Your task to perform on an android device: turn notification dots off Image 0: 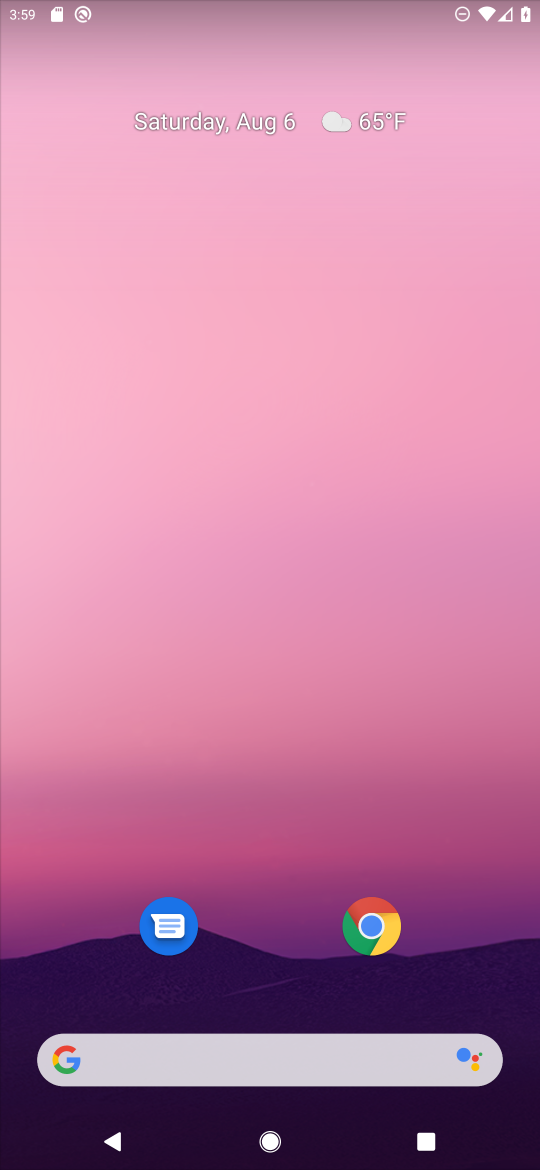
Step 0: click (252, 122)
Your task to perform on an android device: turn notification dots off Image 1: 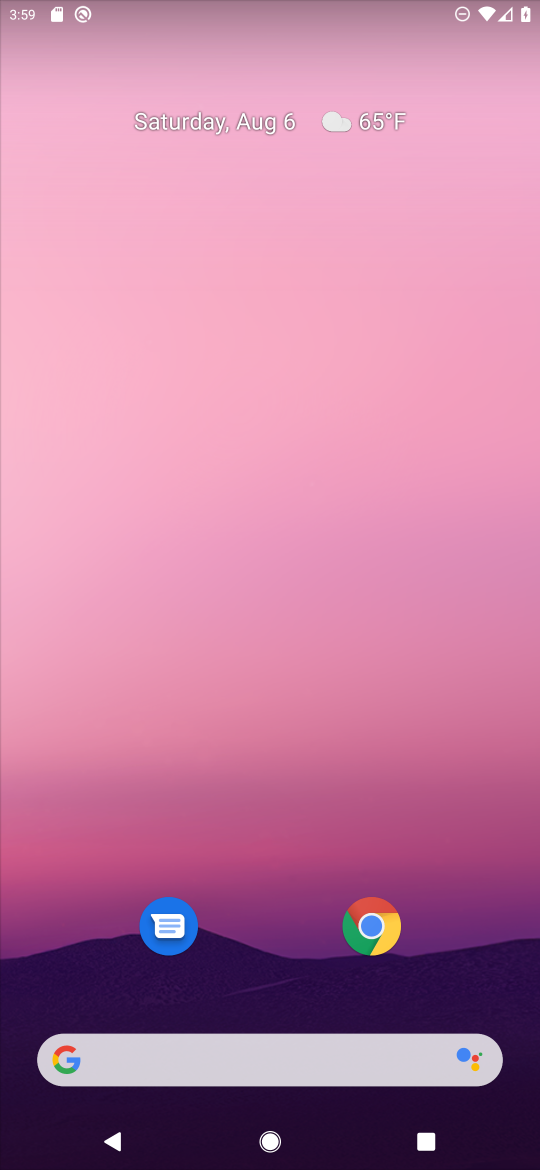
Step 1: drag from (249, 948) to (210, 333)
Your task to perform on an android device: turn notification dots off Image 2: 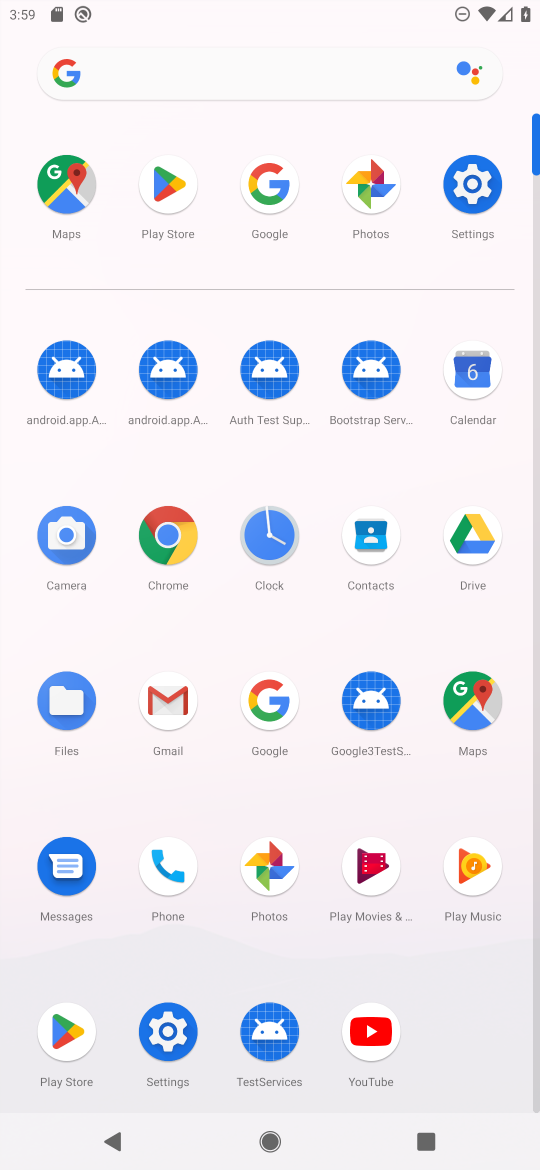
Step 2: click (463, 213)
Your task to perform on an android device: turn notification dots off Image 3: 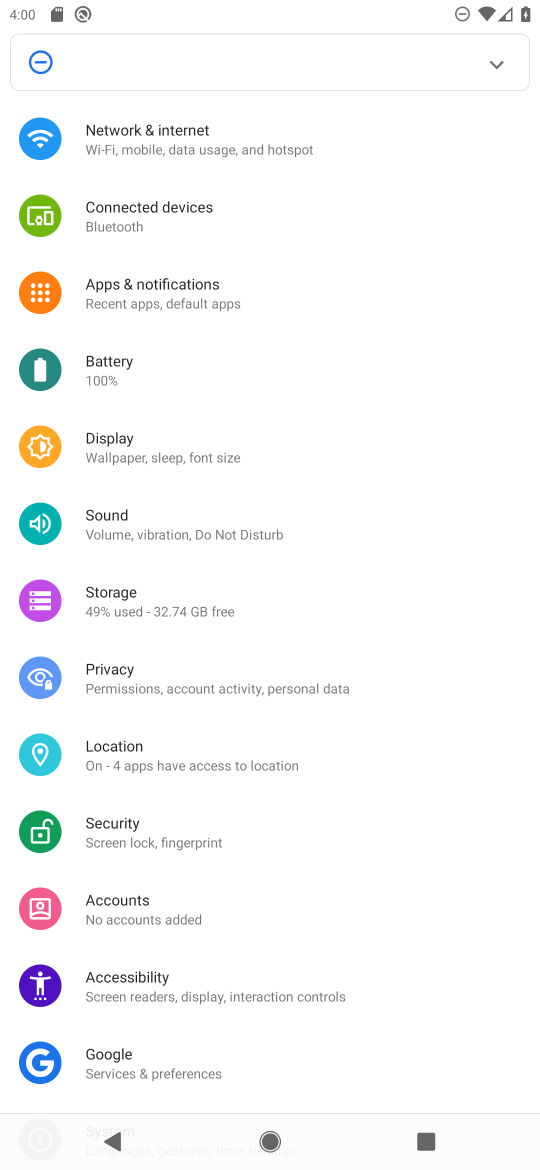
Step 3: click (179, 303)
Your task to perform on an android device: turn notification dots off Image 4: 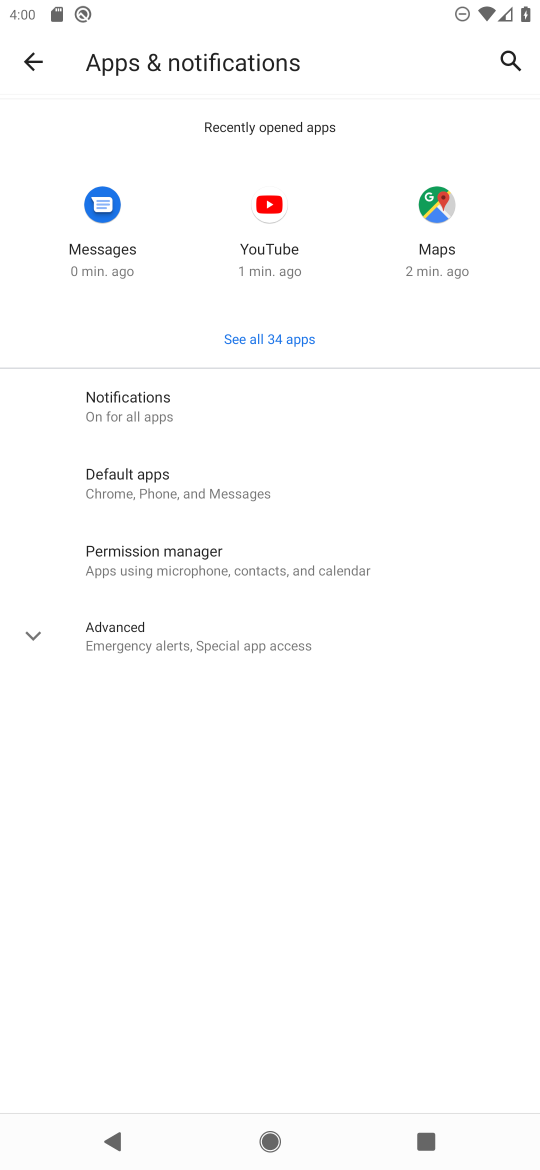
Step 4: click (209, 416)
Your task to perform on an android device: turn notification dots off Image 5: 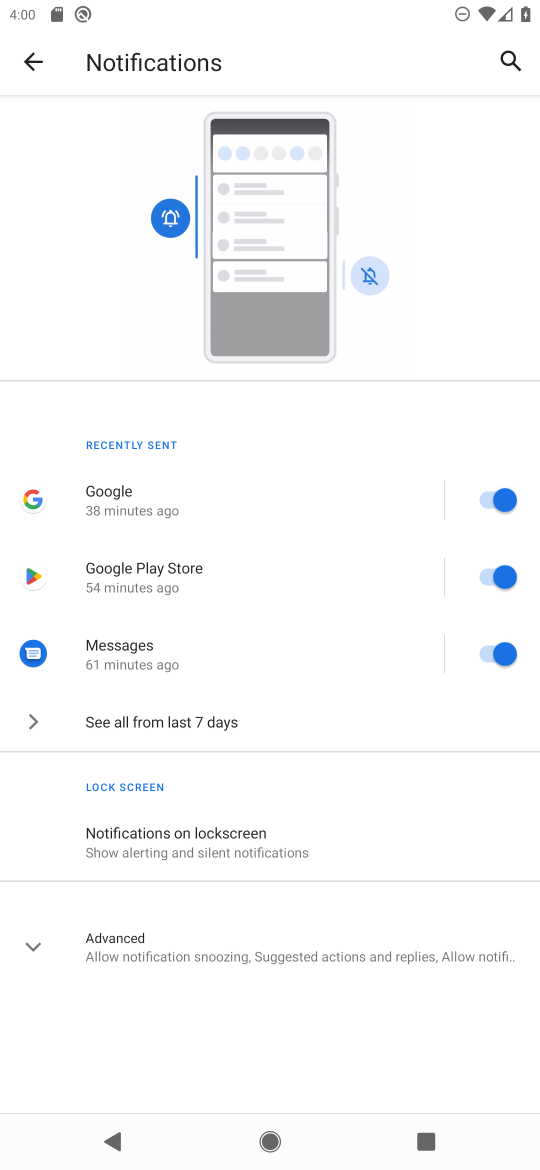
Step 5: click (281, 958)
Your task to perform on an android device: turn notification dots off Image 6: 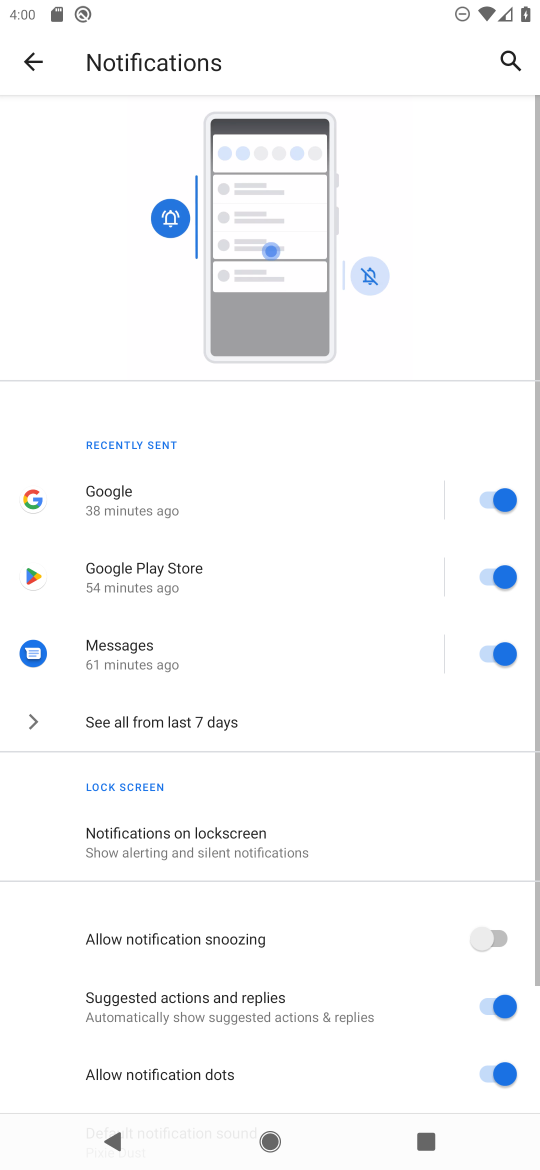
Step 6: drag from (322, 1001) to (270, 472)
Your task to perform on an android device: turn notification dots off Image 7: 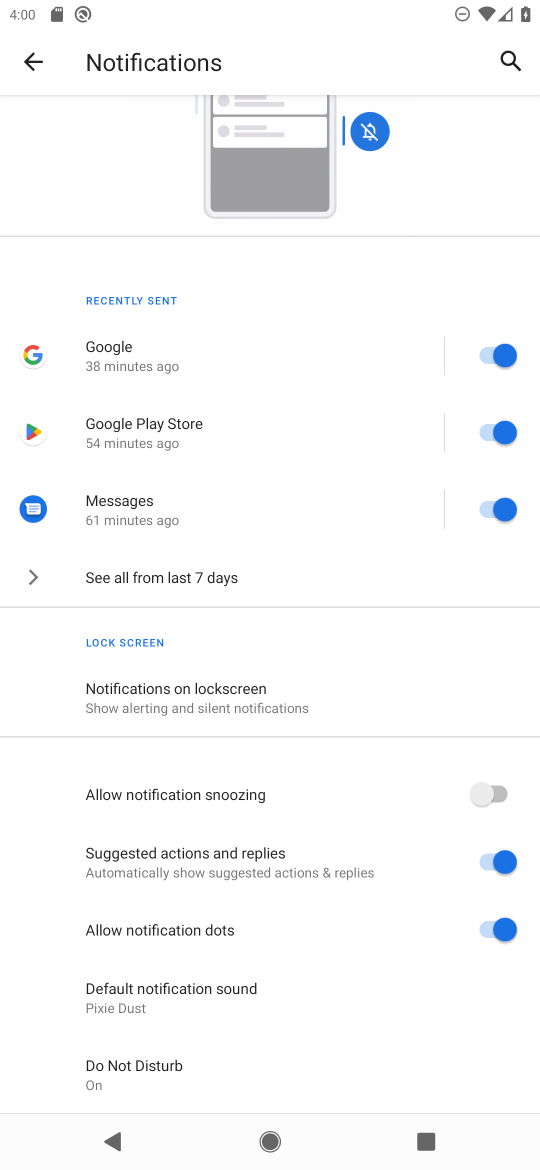
Step 7: click (482, 933)
Your task to perform on an android device: turn notification dots off Image 8: 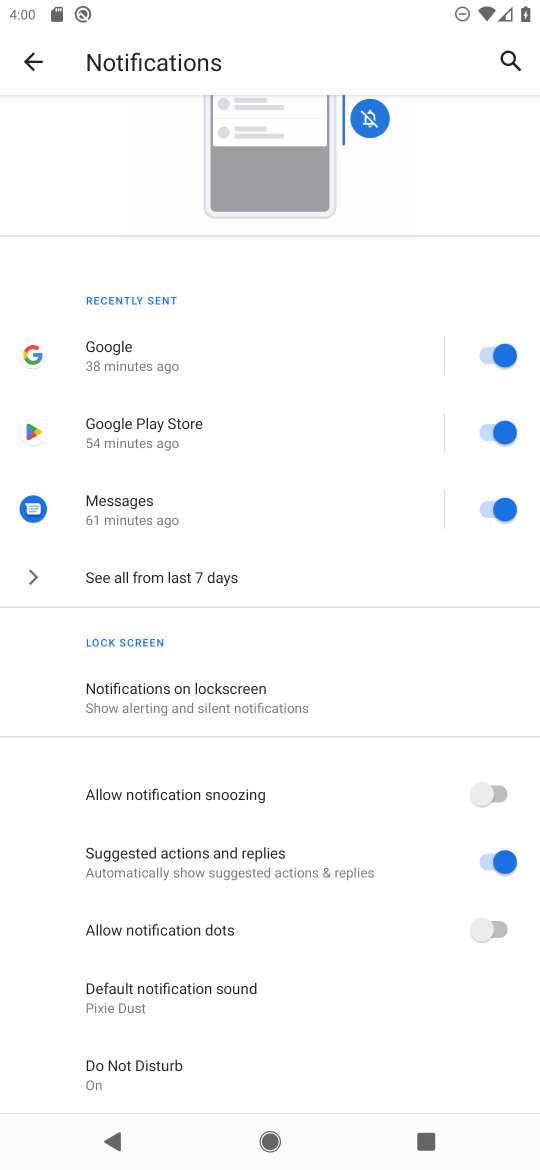
Step 8: task complete